Your task to perform on an android device: toggle data saver in the chrome app Image 0: 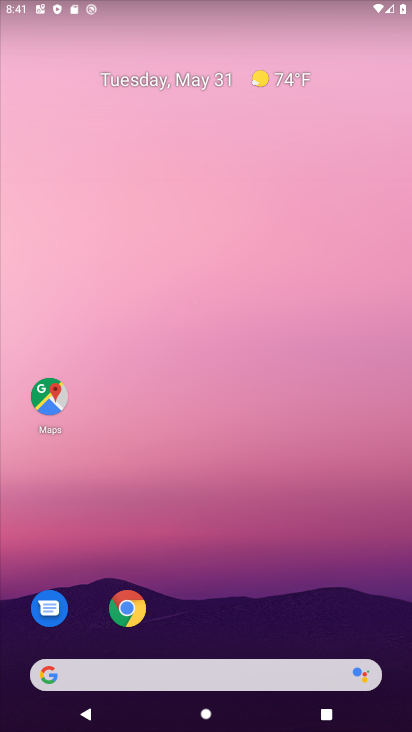
Step 0: drag from (240, 649) to (271, 2)
Your task to perform on an android device: toggle data saver in the chrome app Image 1: 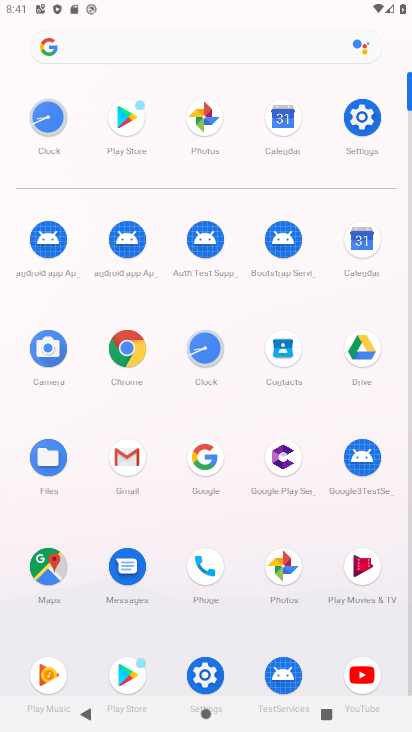
Step 1: click (124, 334)
Your task to perform on an android device: toggle data saver in the chrome app Image 2: 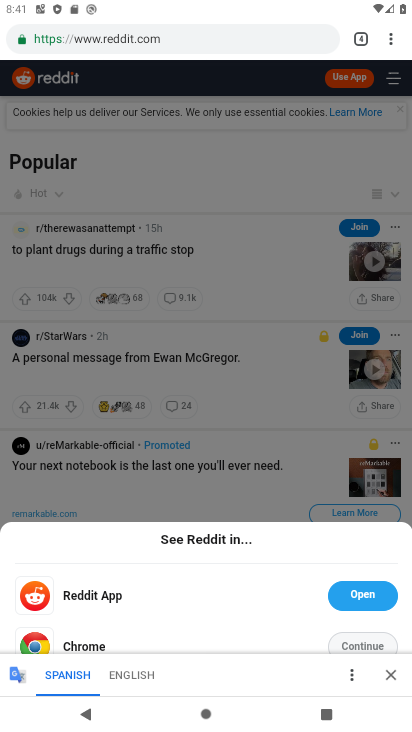
Step 2: click (388, 42)
Your task to perform on an android device: toggle data saver in the chrome app Image 3: 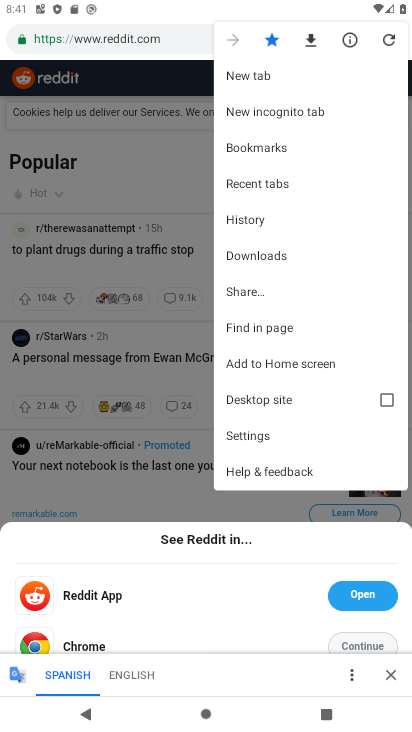
Step 3: click (245, 424)
Your task to perform on an android device: toggle data saver in the chrome app Image 4: 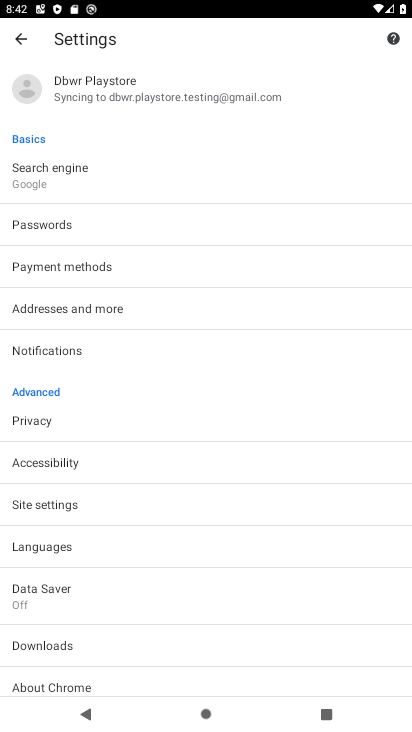
Step 4: click (75, 581)
Your task to perform on an android device: toggle data saver in the chrome app Image 5: 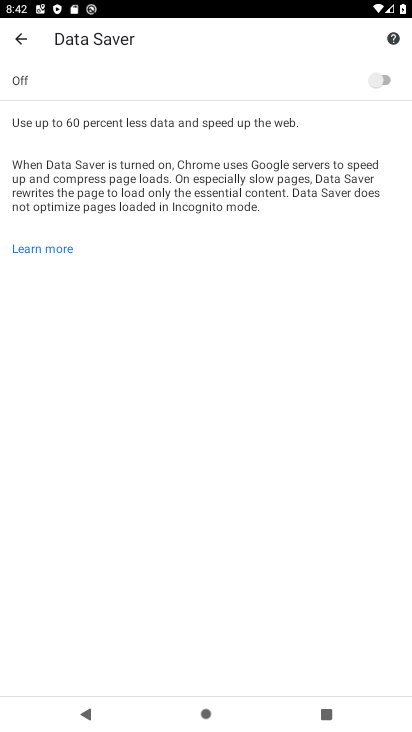
Step 5: click (380, 72)
Your task to perform on an android device: toggle data saver in the chrome app Image 6: 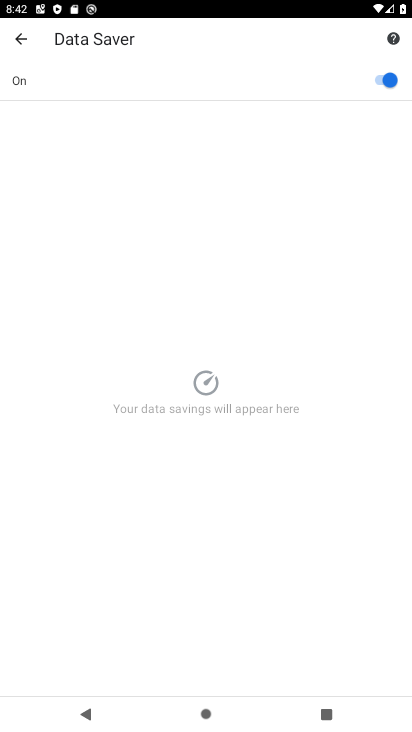
Step 6: task complete